Your task to perform on an android device: turn notification dots on Image 0: 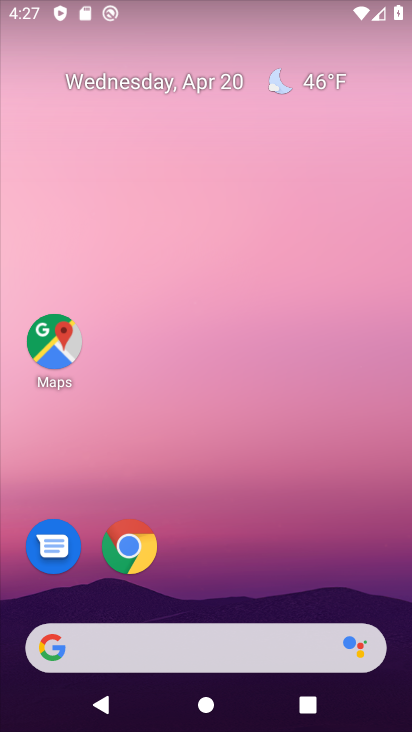
Step 0: drag from (292, 565) to (297, 178)
Your task to perform on an android device: turn notification dots on Image 1: 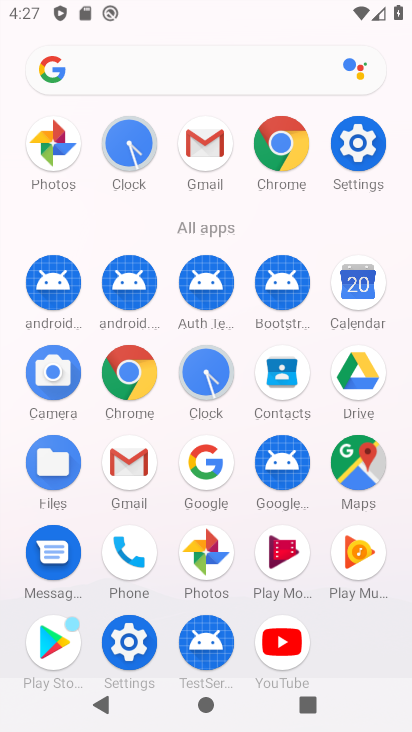
Step 1: click (360, 146)
Your task to perform on an android device: turn notification dots on Image 2: 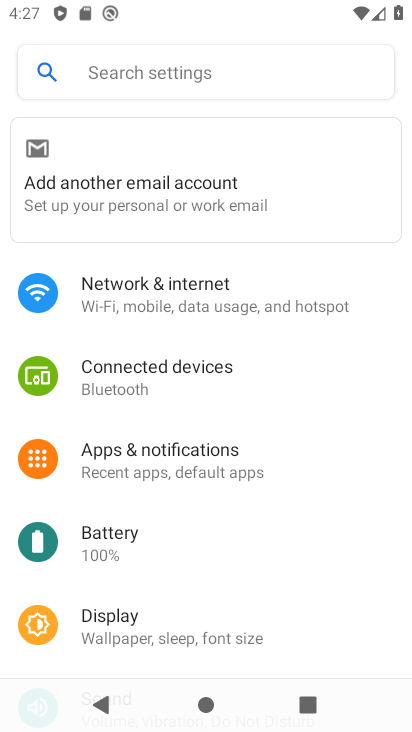
Step 2: click (179, 470)
Your task to perform on an android device: turn notification dots on Image 3: 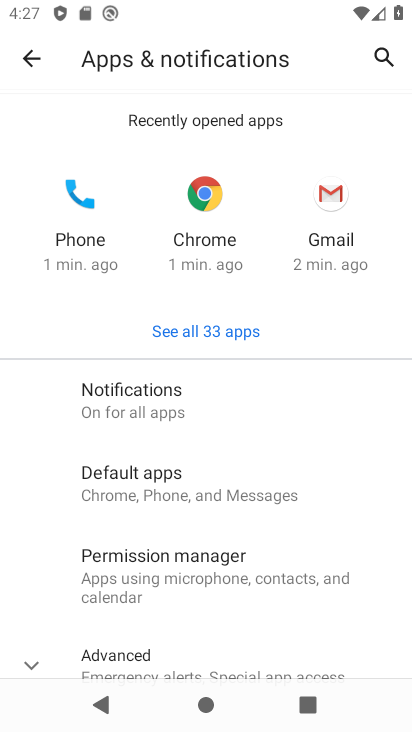
Step 3: click (191, 410)
Your task to perform on an android device: turn notification dots on Image 4: 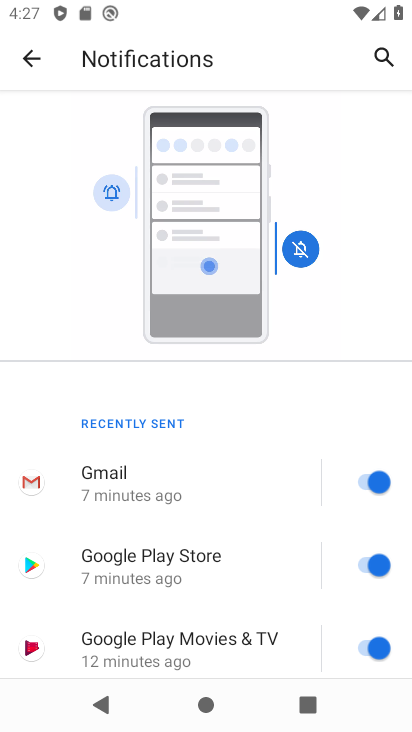
Step 4: drag from (187, 563) to (187, 210)
Your task to perform on an android device: turn notification dots on Image 5: 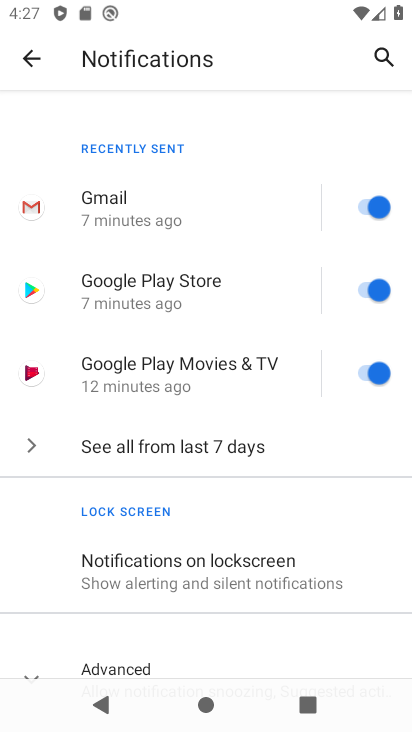
Step 5: drag from (137, 603) to (140, 459)
Your task to perform on an android device: turn notification dots on Image 6: 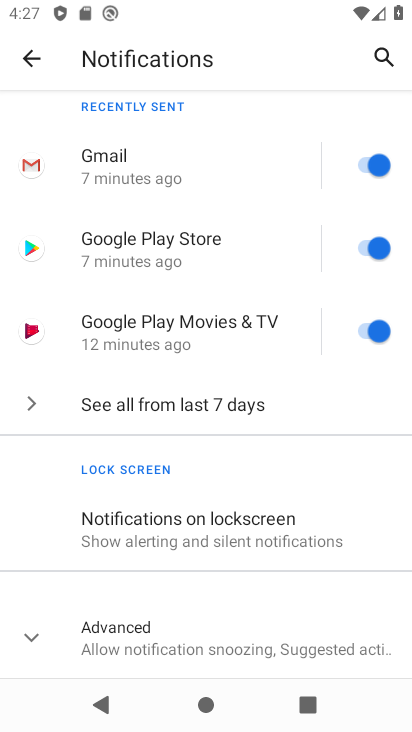
Step 6: click (25, 634)
Your task to perform on an android device: turn notification dots on Image 7: 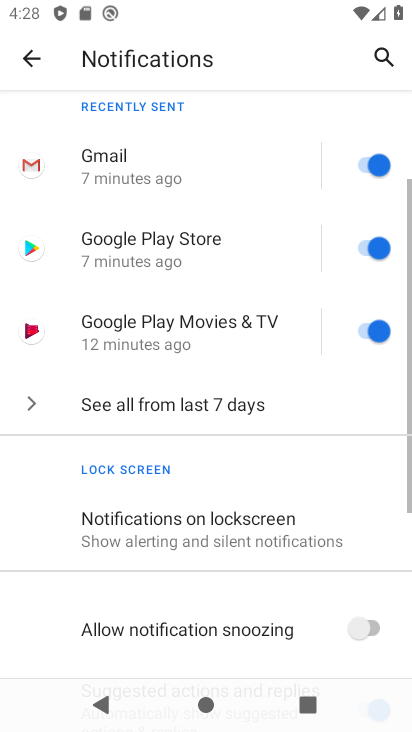
Step 7: task complete